Your task to perform on an android device: toggle pop-ups in chrome Image 0: 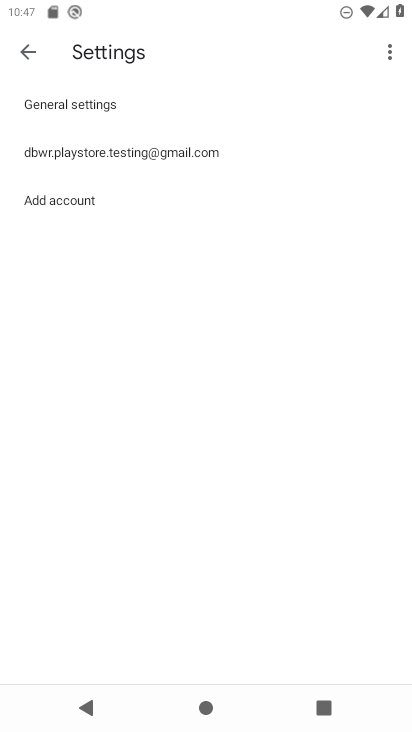
Step 0: press home button
Your task to perform on an android device: toggle pop-ups in chrome Image 1: 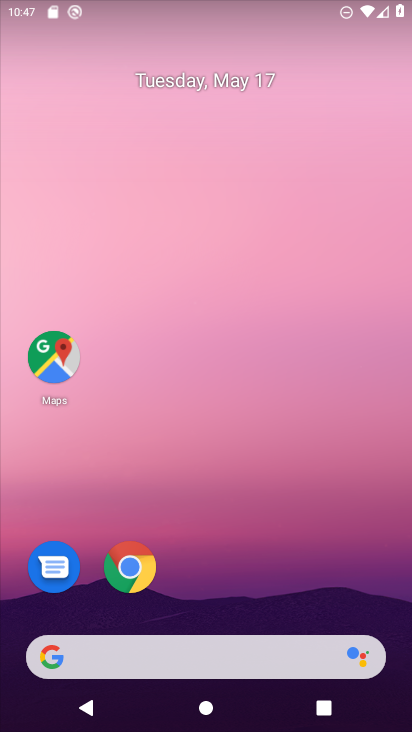
Step 1: drag from (241, 627) to (294, 250)
Your task to perform on an android device: toggle pop-ups in chrome Image 2: 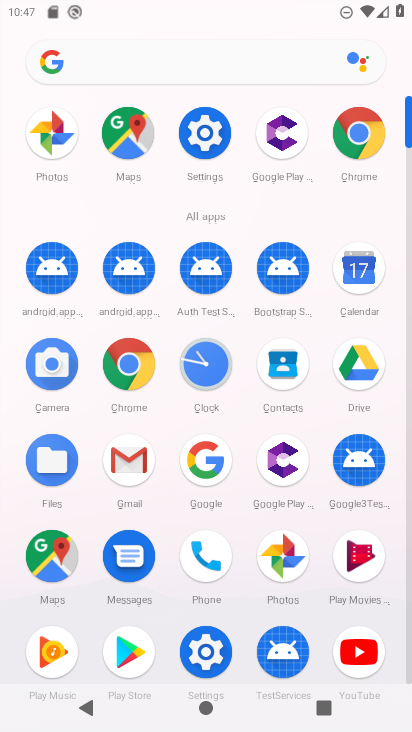
Step 2: click (353, 126)
Your task to perform on an android device: toggle pop-ups in chrome Image 3: 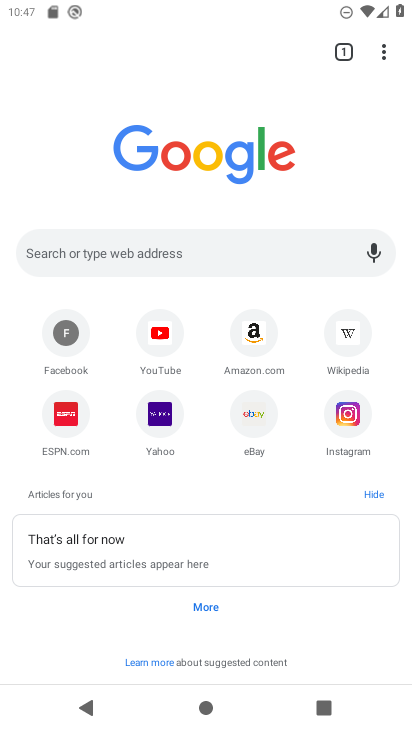
Step 3: click (384, 51)
Your task to perform on an android device: toggle pop-ups in chrome Image 4: 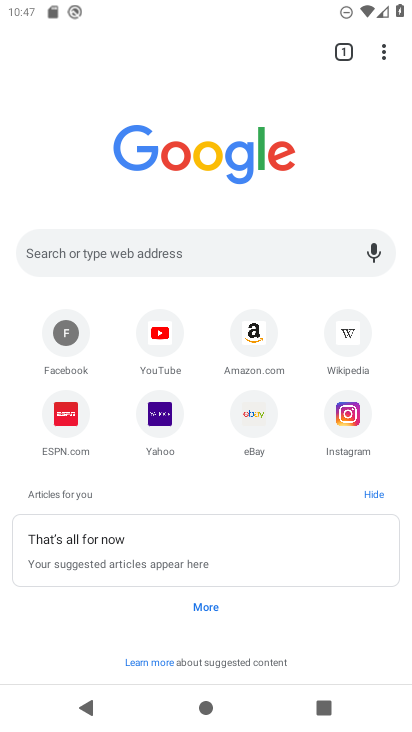
Step 4: click (385, 52)
Your task to perform on an android device: toggle pop-ups in chrome Image 5: 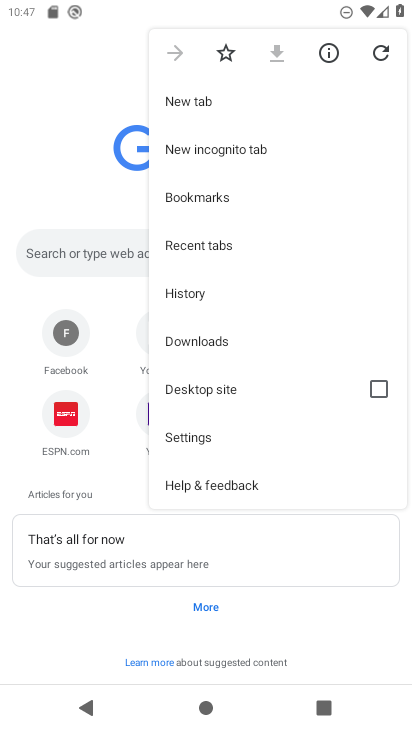
Step 5: click (211, 434)
Your task to perform on an android device: toggle pop-ups in chrome Image 6: 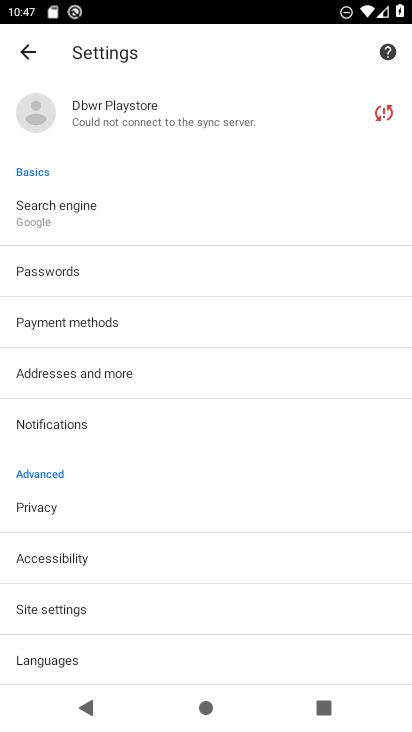
Step 6: drag from (133, 630) to (247, 126)
Your task to perform on an android device: toggle pop-ups in chrome Image 7: 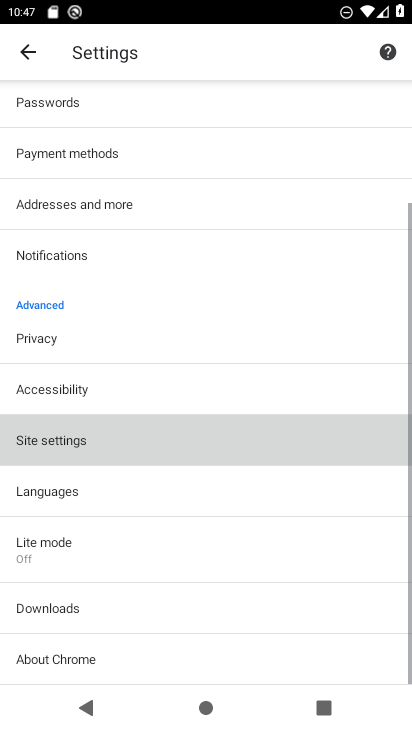
Step 7: drag from (271, 403) to (269, 113)
Your task to perform on an android device: toggle pop-ups in chrome Image 8: 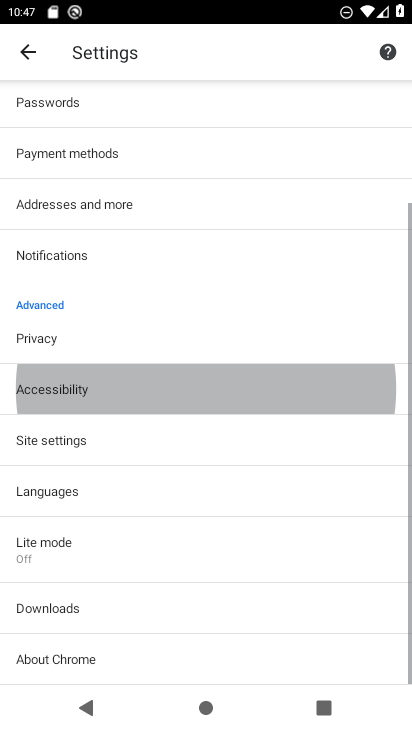
Step 8: drag from (190, 437) to (231, 218)
Your task to perform on an android device: toggle pop-ups in chrome Image 9: 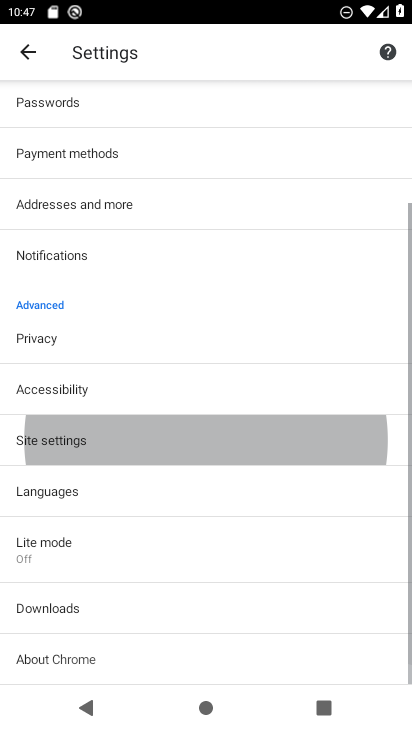
Step 9: drag from (208, 504) to (249, 186)
Your task to perform on an android device: toggle pop-ups in chrome Image 10: 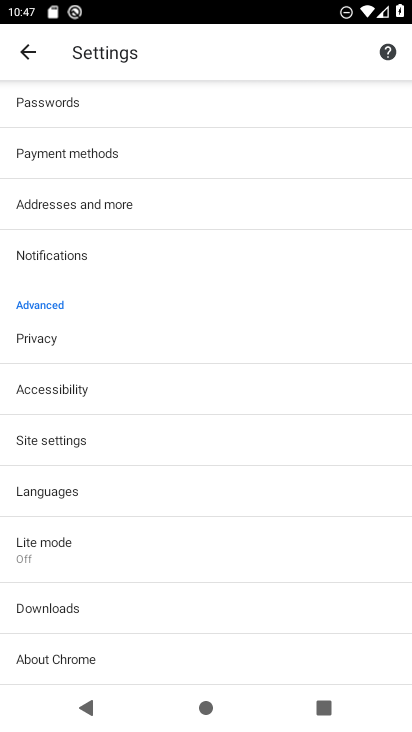
Step 10: click (129, 434)
Your task to perform on an android device: toggle pop-ups in chrome Image 11: 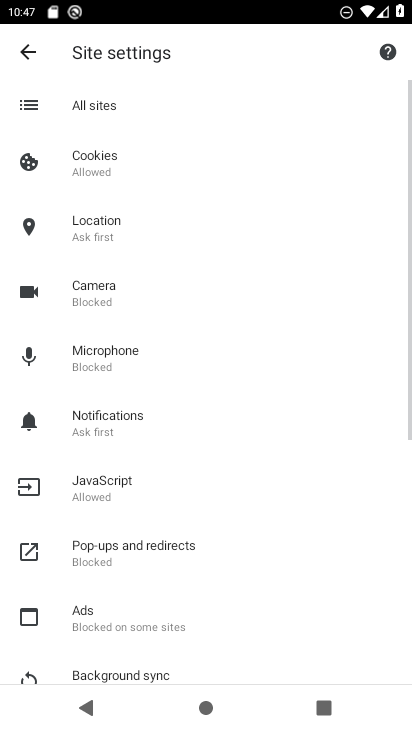
Step 11: click (153, 547)
Your task to perform on an android device: toggle pop-ups in chrome Image 12: 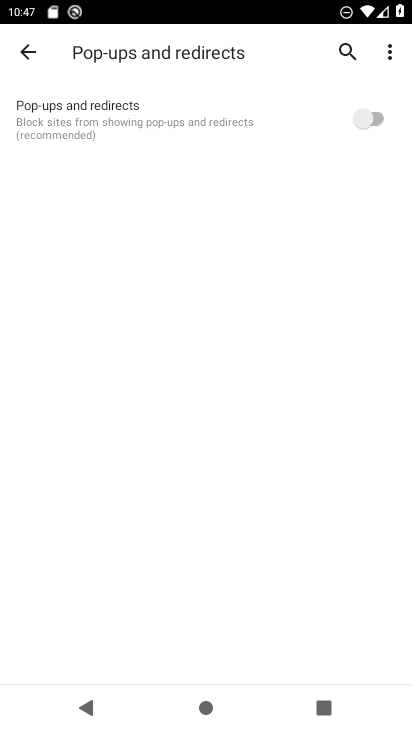
Step 12: click (376, 120)
Your task to perform on an android device: toggle pop-ups in chrome Image 13: 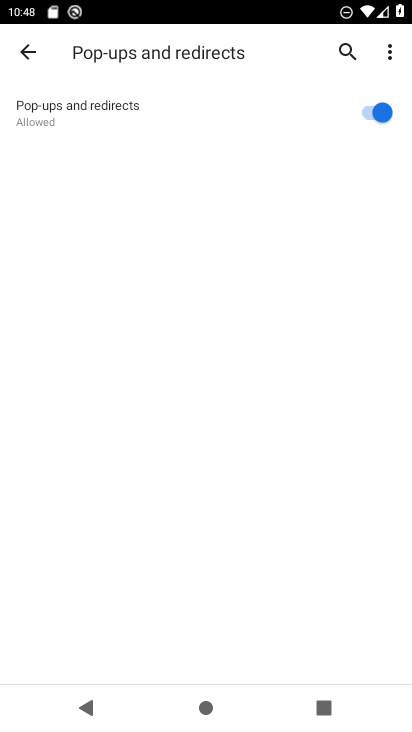
Step 13: task complete